Your task to perform on an android device: set an alarm Image 0: 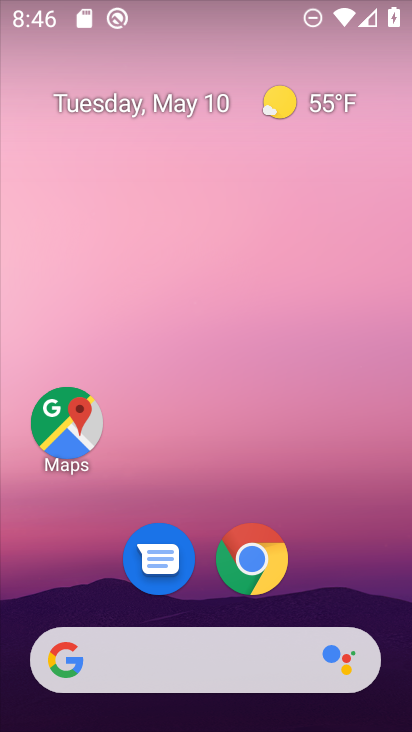
Step 0: drag from (184, 696) to (175, 242)
Your task to perform on an android device: set an alarm Image 1: 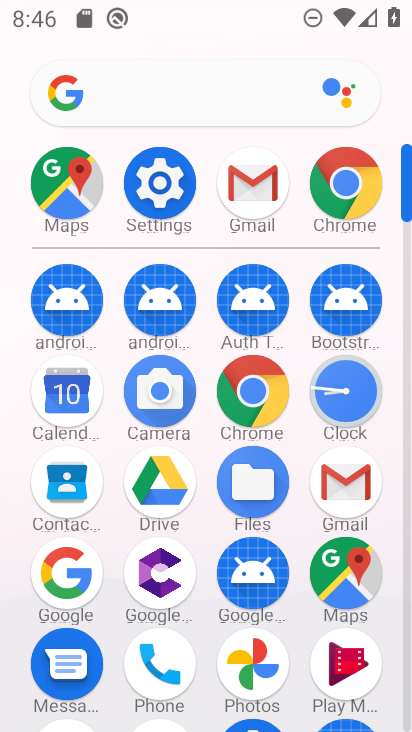
Step 1: click (354, 391)
Your task to perform on an android device: set an alarm Image 2: 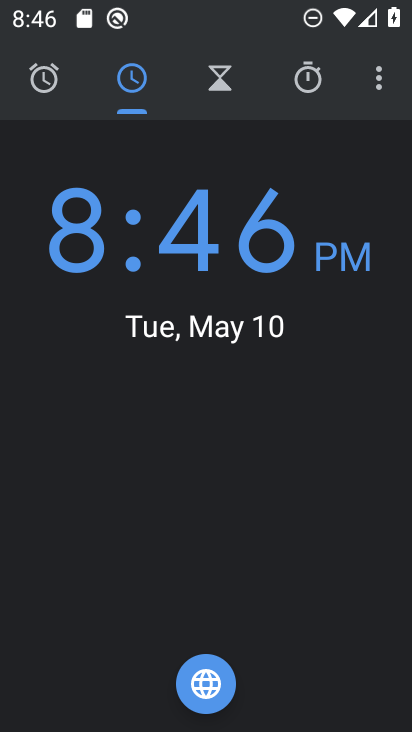
Step 2: click (41, 80)
Your task to perform on an android device: set an alarm Image 3: 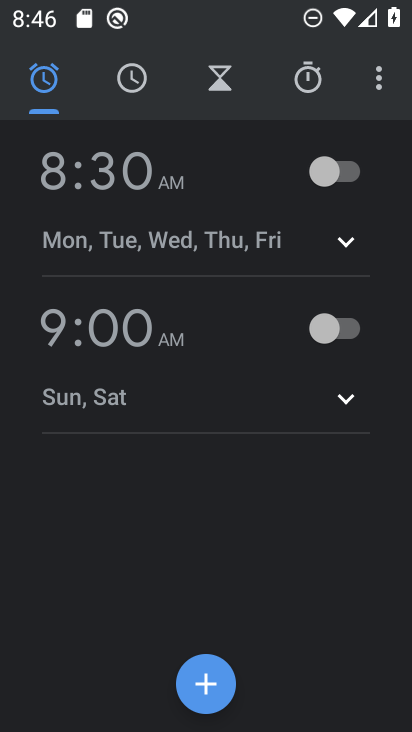
Step 3: click (203, 683)
Your task to perform on an android device: set an alarm Image 4: 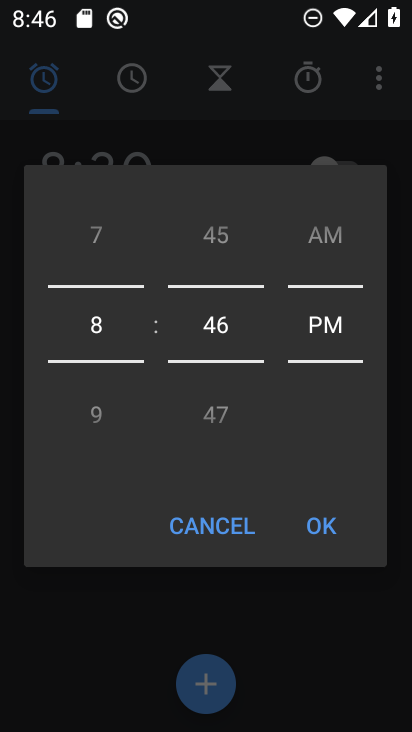
Step 4: drag from (102, 237) to (100, 403)
Your task to perform on an android device: set an alarm Image 5: 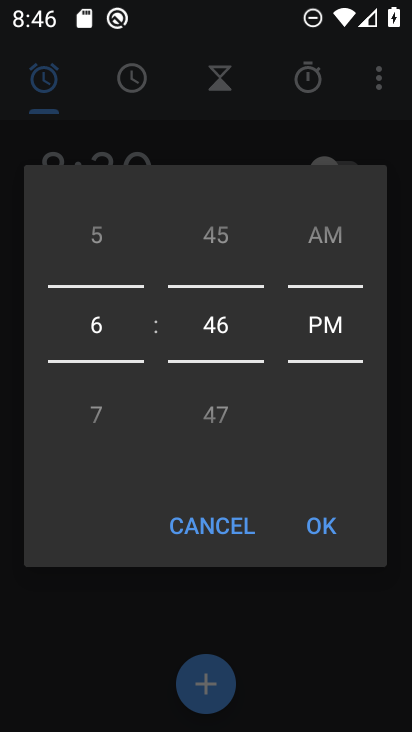
Step 5: drag from (229, 229) to (213, 459)
Your task to perform on an android device: set an alarm Image 6: 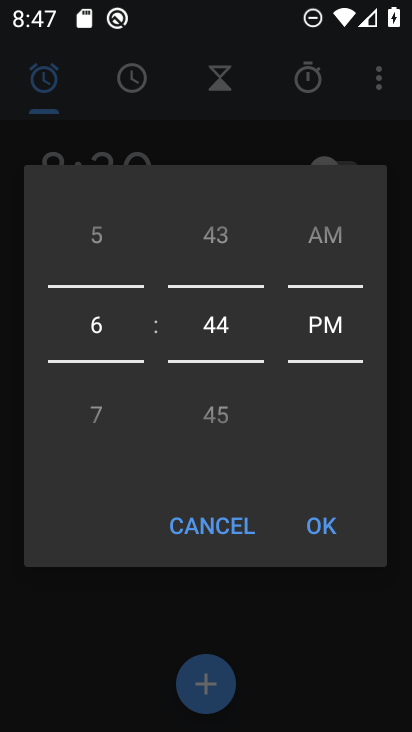
Step 6: drag from (334, 334) to (332, 503)
Your task to perform on an android device: set an alarm Image 7: 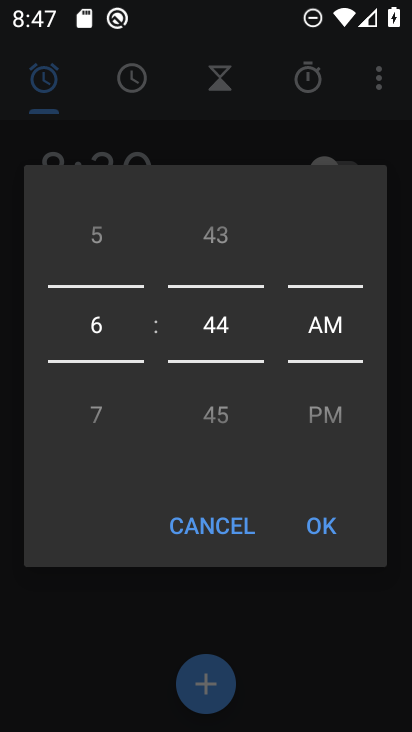
Step 7: click (317, 518)
Your task to perform on an android device: set an alarm Image 8: 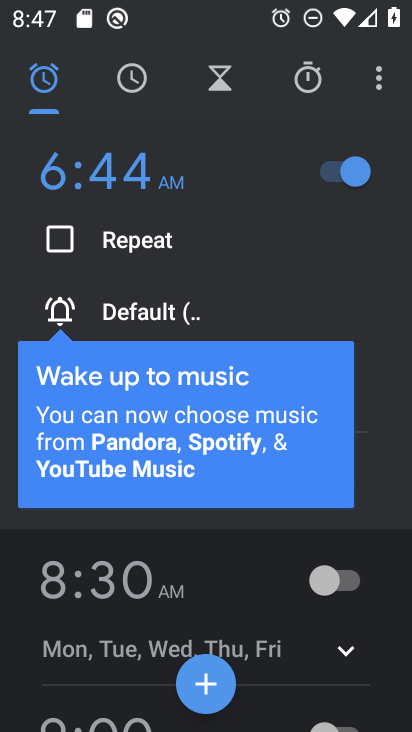
Step 8: task complete